Your task to perform on an android device: Open the calendar and show me this week's events? Image 0: 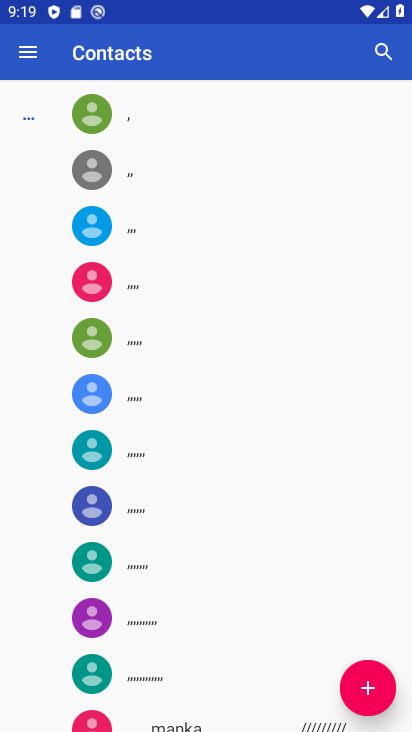
Step 0: task complete